Your task to perform on an android device: turn on improve location accuracy Image 0: 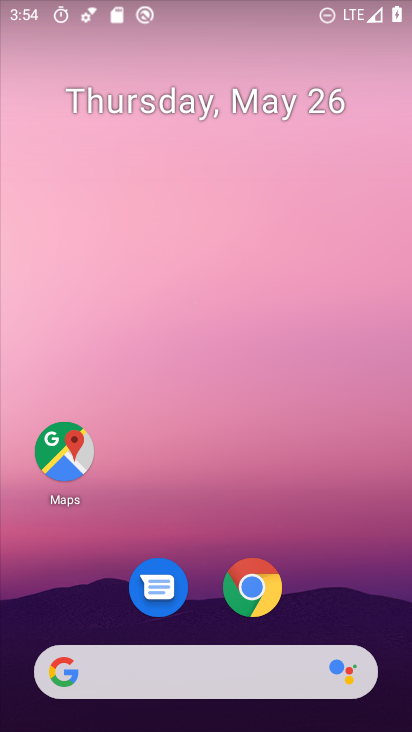
Step 0: drag from (338, 506) to (267, 102)
Your task to perform on an android device: turn on improve location accuracy Image 1: 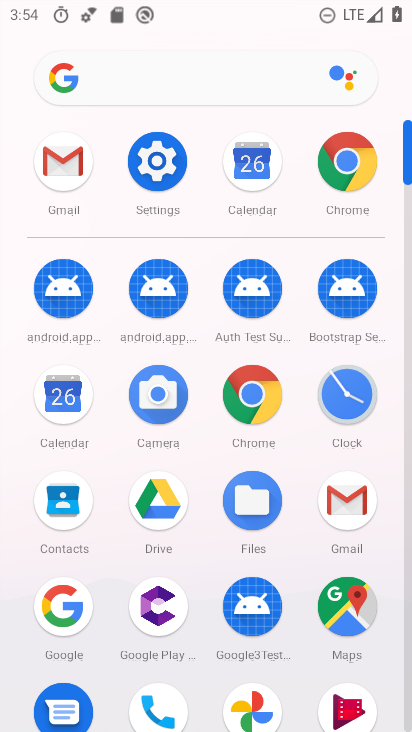
Step 1: drag from (288, 562) to (249, 140)
Your task to perform on an android device: turn on improve location accuracy Image 2: 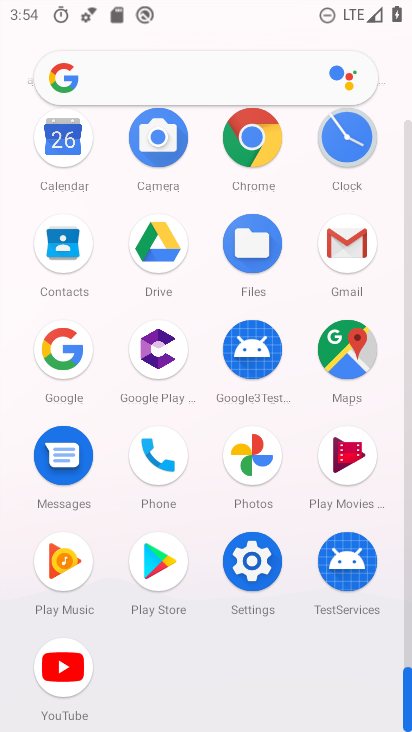
Step 2: click (249, 573)
Your task to perform on an android device: turn on improve location accuracy Image 3: 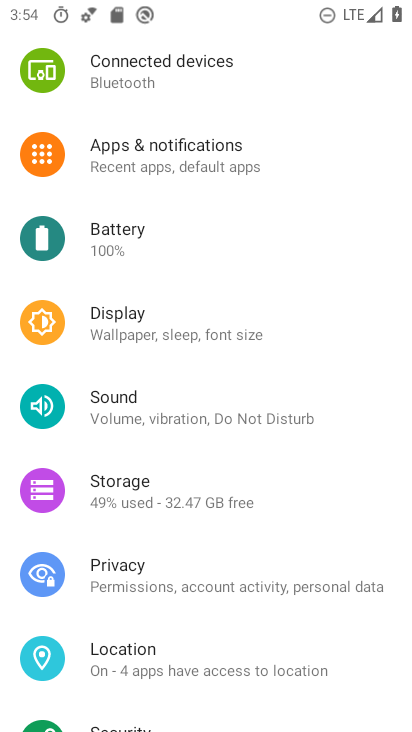
Step 3: drag from (195, 538) to (197, 175)
Your task to perform on an android device: turn on improve location accuracy Image 4: 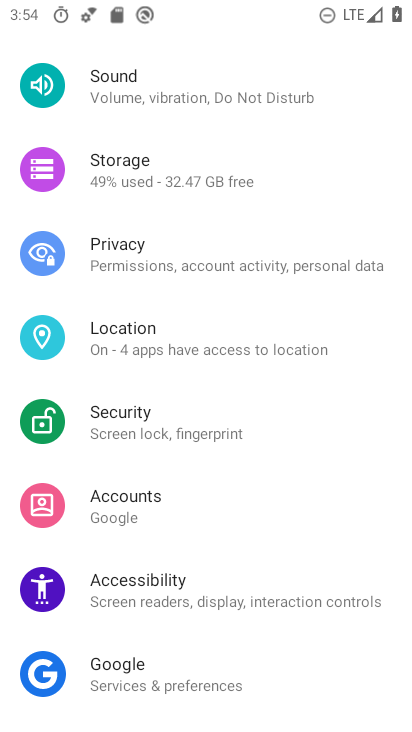
Step 4: click (134, 334)
Your task to perform on an android device: turn on improve location accuracy Image 5: 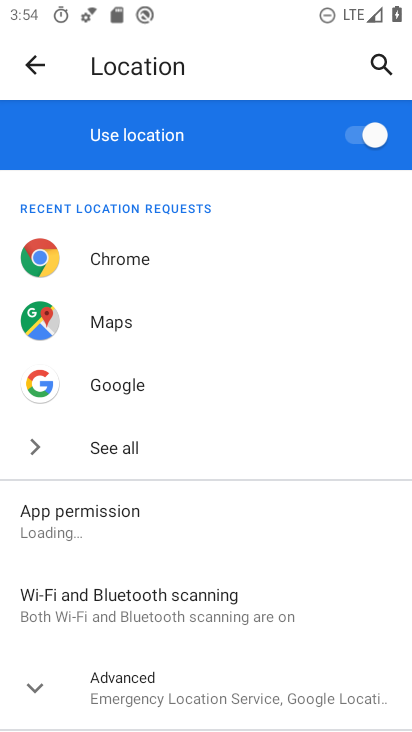
Step 5: drag from (211, 627) to (169, 171)
Your task to perform on an android device: turn on improve location accuracy Image 6: 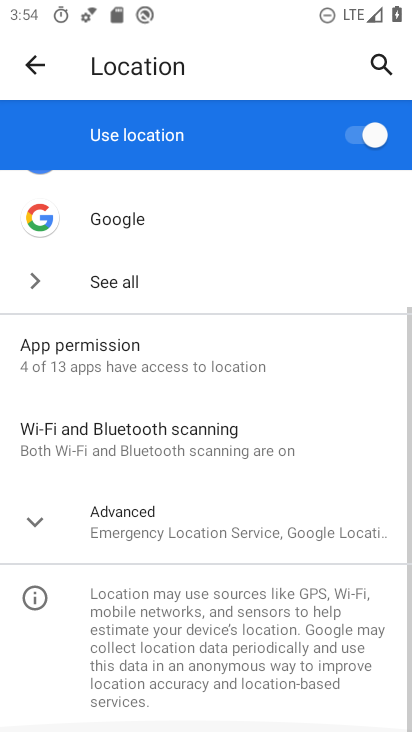
Step 6: click (91, 525)
Your task to perform on an android device: turn on improve location accuracy Image 7: 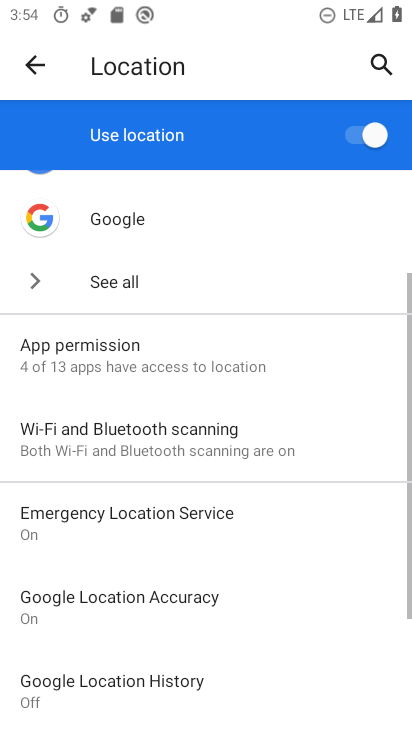
Step 7: drag from (265, 644) to (269, 440)
Your task to perform on an android device: turn on improve location accuracy Image 8: 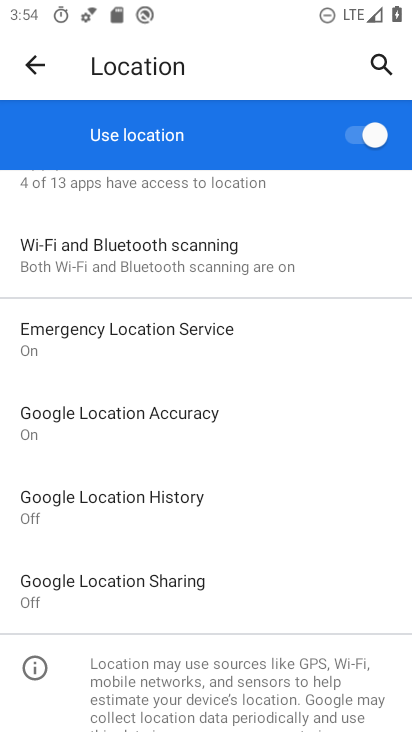
Step 8: click (187, 422)
Your task to perform on an android device: turn on improve location accuracy Image 9: 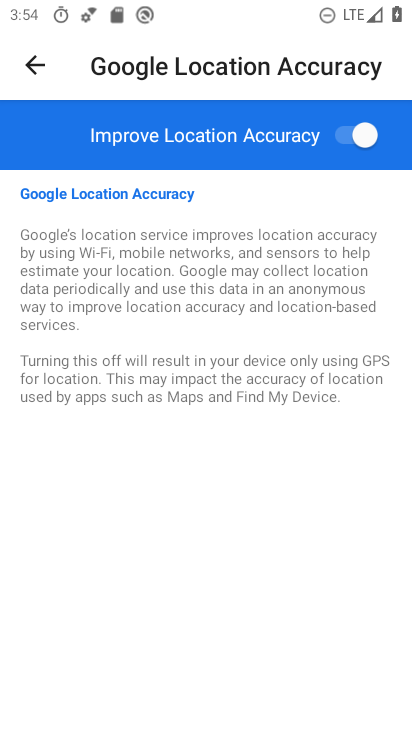
Step 9: task complete